Your task to perform on an android device: Open Youtube and go to the subscriptions tab Image 0: 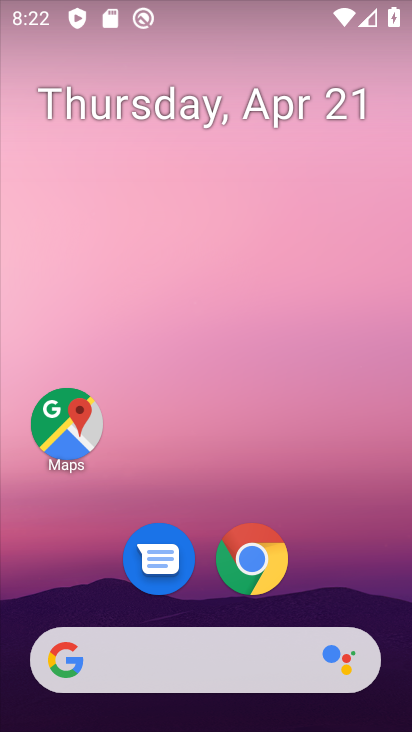
Step 0: drag from (330, 502) to (262, 241)
Your task to perform on an android device: Open Youtube and go to the subscriptions tab Image 1: 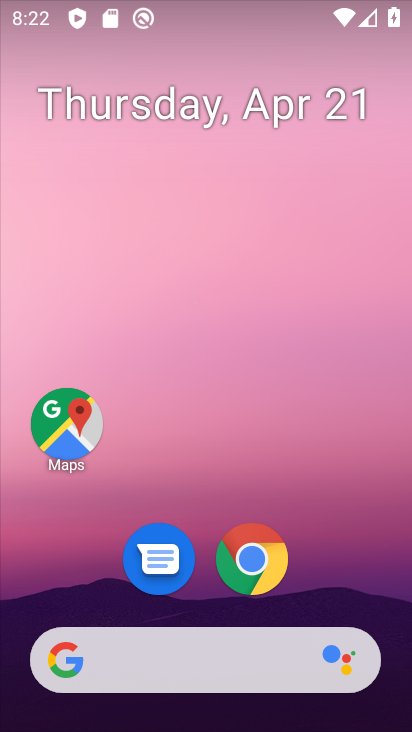
Step 1: drag from (326, 506) to (252, 111)
Your task to perform on an android device: Open Youtube and go to the subscriptions tab Image 2: 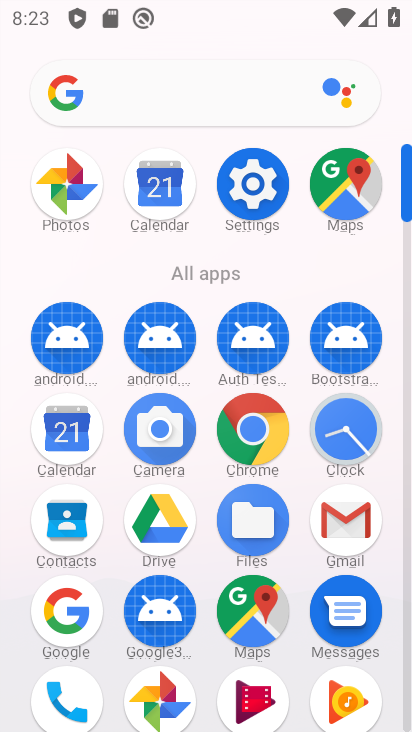
Step 2: drag from (297, 604) to (314, 264)
Your task to perform on an android device: Open Youtube and go to the subscriptions tab Image 3: 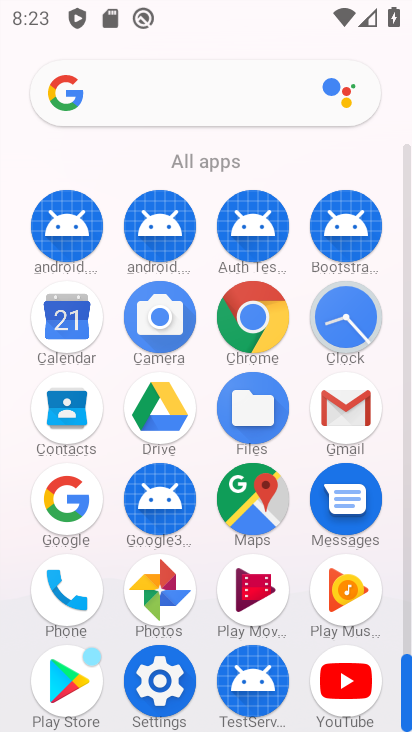
Step 3: click (341, 690)
Your task to perform on an android device: Open Youtube and go to the subscriptions tab Image 4: 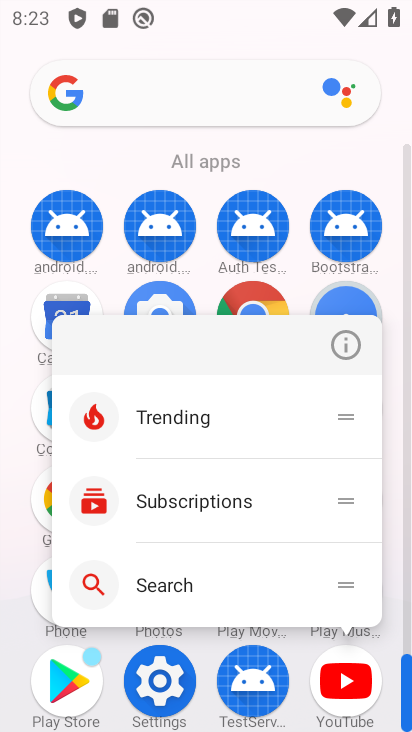
Step 4: click (374, 659)
Your task to perform on an android device: Open Youtube and go to the subscriptions tab Image 5: 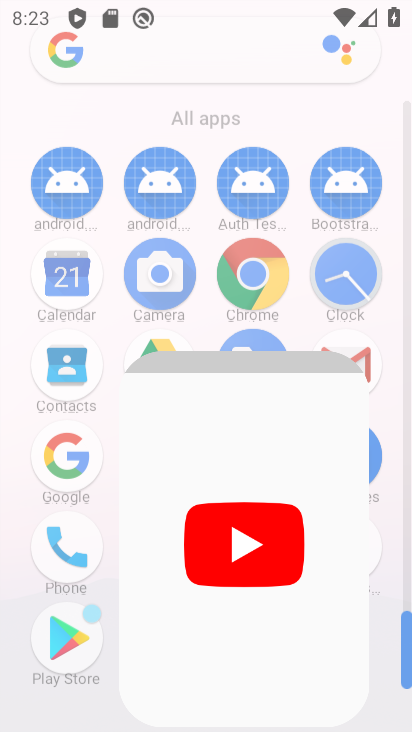
Step 5: click (352, 658)
Your task to perform on an android device: Open Youtube and go to the subscriptions tab Image 6: 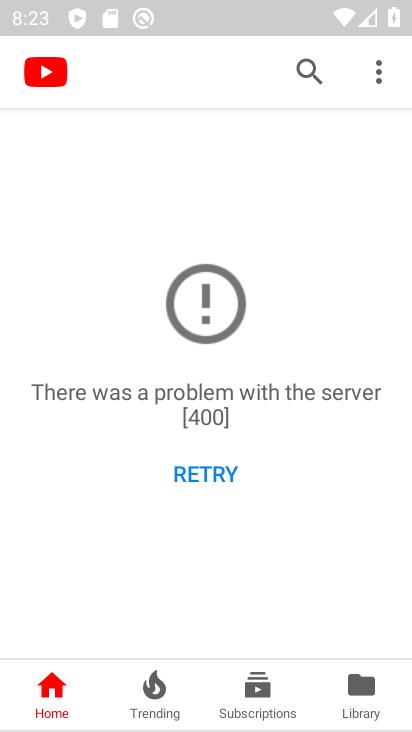
Step 6: click (266, 690)
Your task to perform on an android device: Open Youtube and go to the subscriptions tab Image 7: 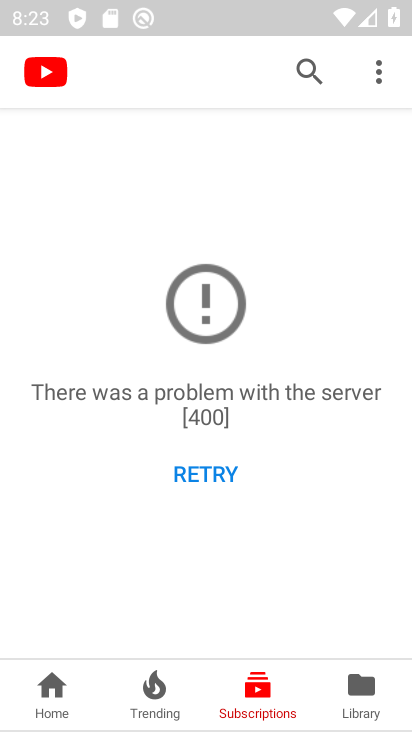
Step 7: task complete